Your task to perform on an android device: Open the Play Movies app and select the watchlist tab. Image 0: 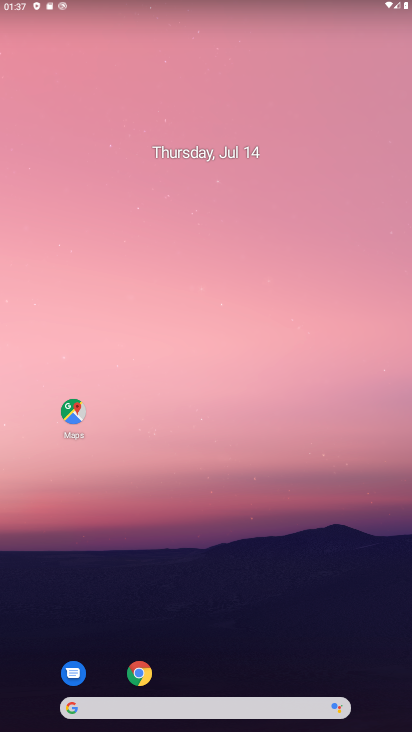
Step 0: drag from (283, 651) to (263, 96)
Your task to perform on an android device: Open the Play Movies app and select the watchlist tab. Image 1: 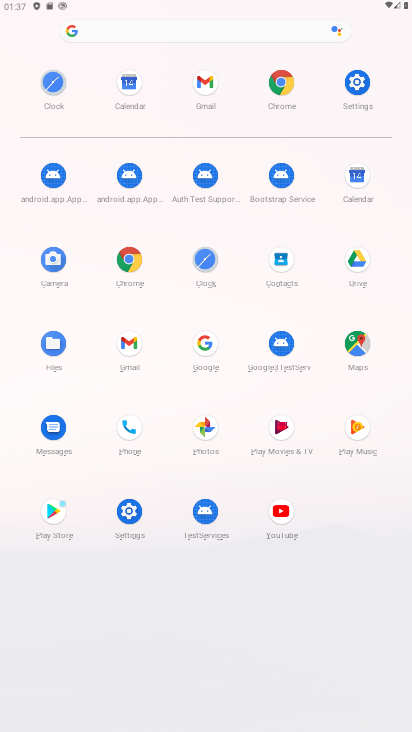
Step 1: click (297, 419)
Your task to perform on an android device: Open the Play Movies app and select the watchlist tab. Image 2: 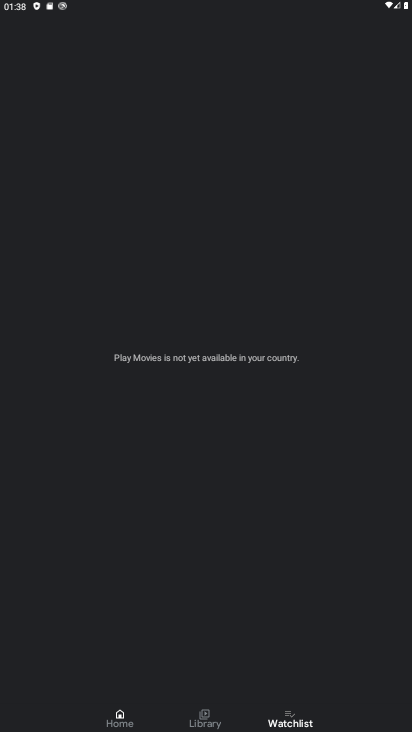
Step 2: task complete